Your task to perform on an android device: turn off improve location accuracy Image 0: 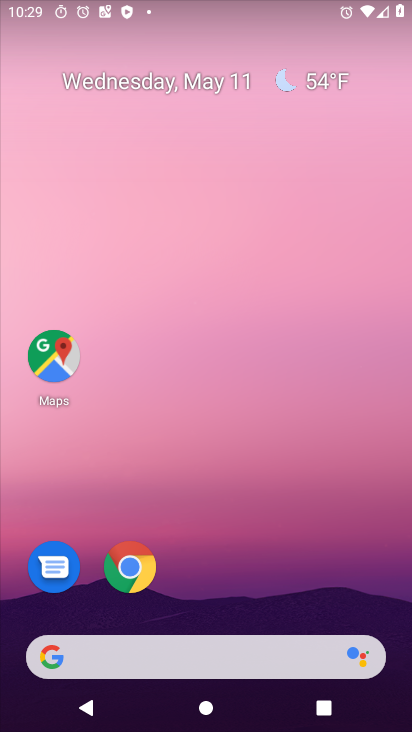
Step 0: drag from (223, 601) to (279, 59)
Your task to perform on an android device: turn off improve location accuracy Image 1: 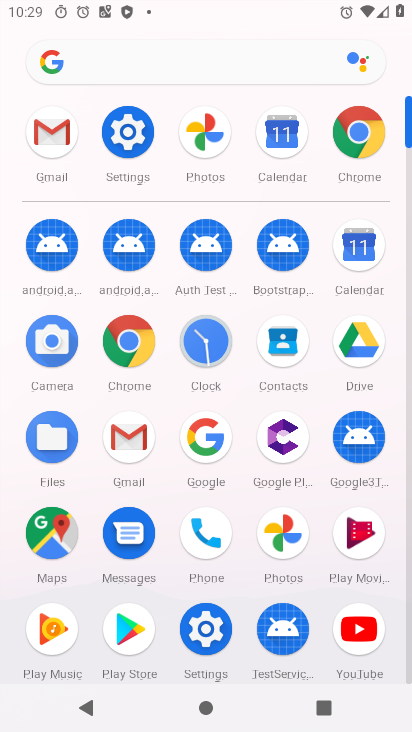
Step 1: click (190, 625)
Your task to perform on an android device: turn off improve location accuracy Image 2: 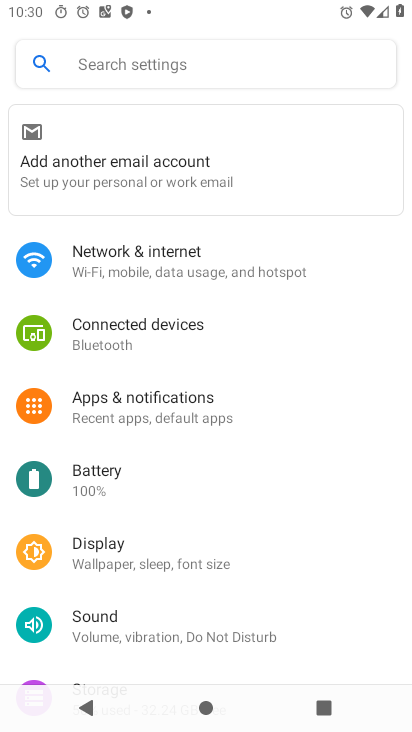
Step 2: drag from (143, 563) to (183, 367)
Your task to perform on an android device: turn off improve location accuracy Image 3: 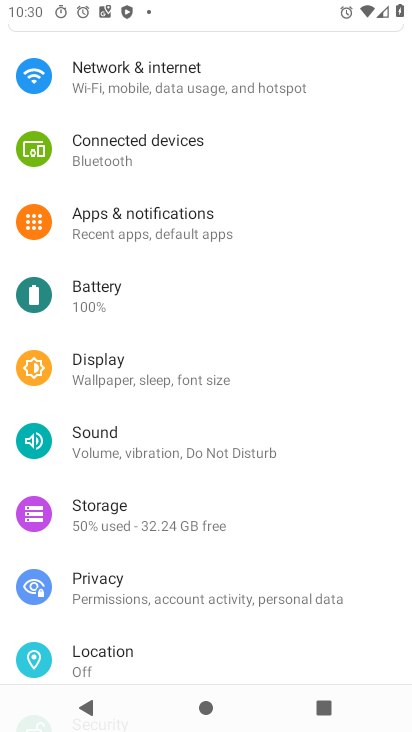
Step 3: click (115, 645)
Your task to perform on an android device: turn off improve location accuracy Image 4: 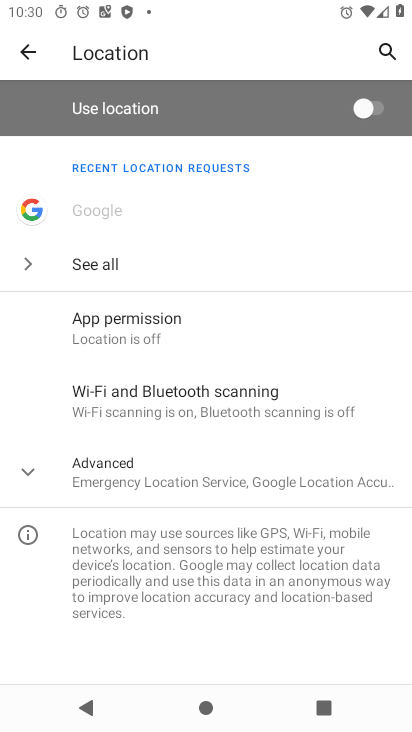
Step 4: click (162, 468)
Your task to perform on an android device: turn off improve location accuracy Image 5: 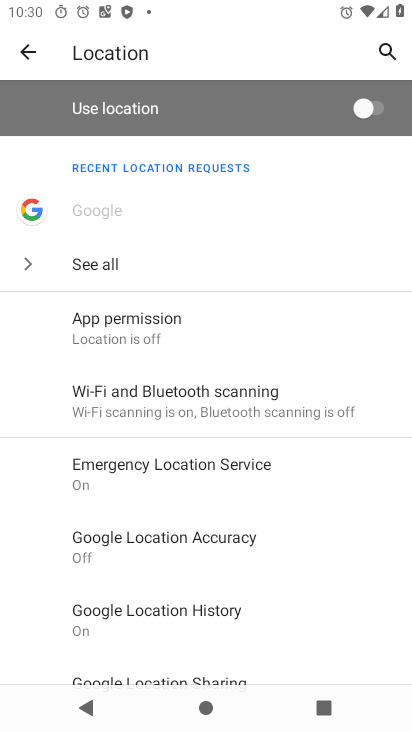
Step 5: drag from (179, 601) to (187, 554)
Your task to perform on an android device: turn off improve location accuracy Image 6: 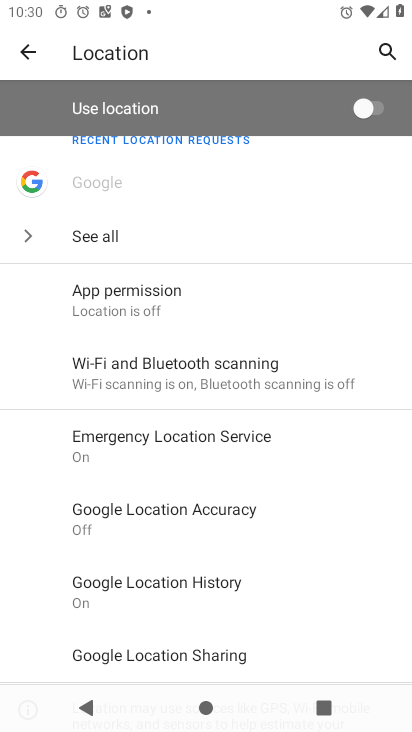
Step 6: click (143, 517)
Your task to perform on an android device: turn off improve location accuracy Image 7: 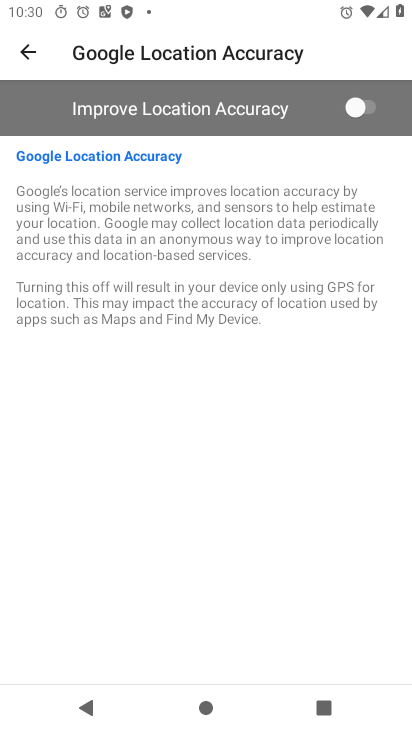
Step 7: task complete